Your task to perform on an android device: move a message to another label in the gmail app Image 0: 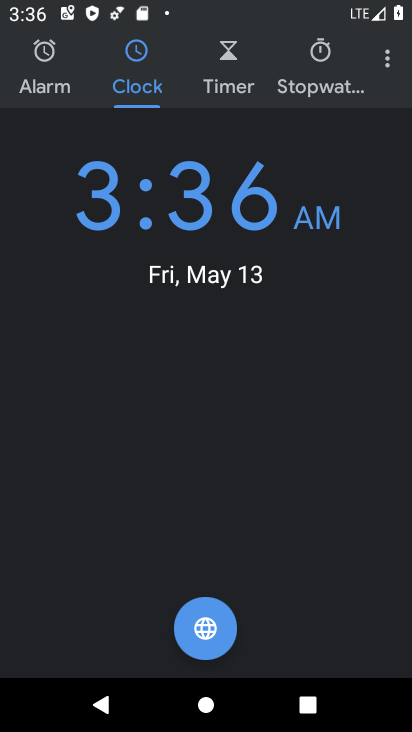
Step 0: press home button
Your task to perform on an android device: move a message to another label in the gmail app Image 1: 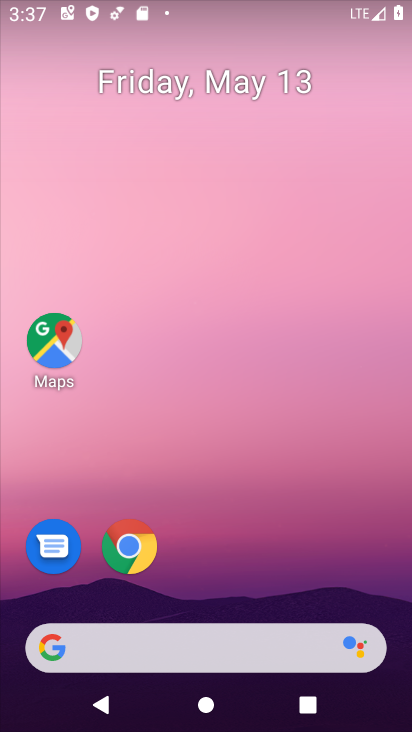
Step 1: drag from (174, 604) to (231, 216)
Your task to perform on an android device: move a message to another label in the gmail app Image 2: 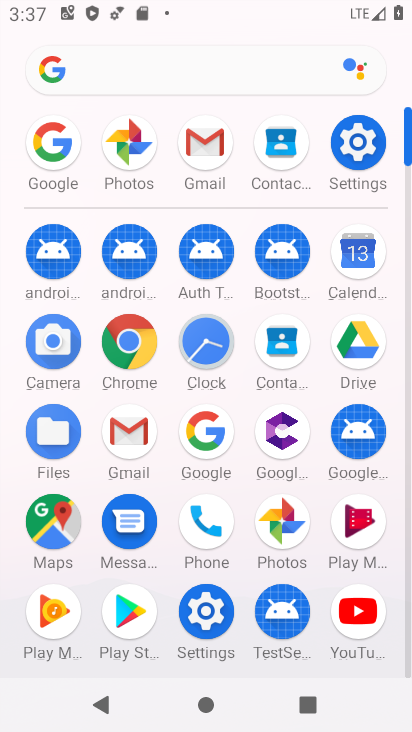
Step 2: click (219, 136)
Your task to perform on an android device: move a message to another label in the gmail app Image 3: 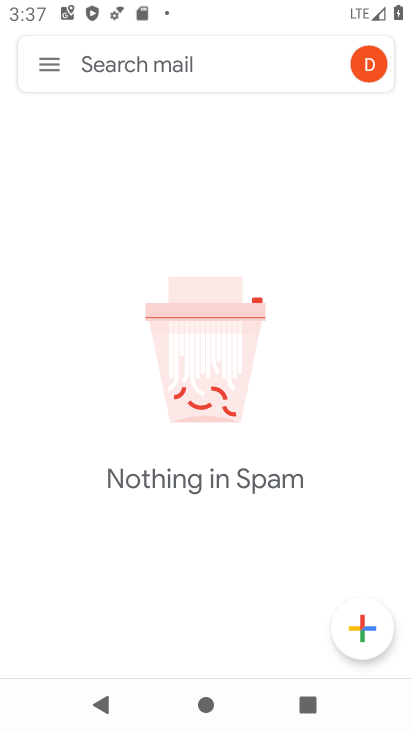
Step 3: task complete